Your task to perform on an android device: set the stopwatch Image 0: 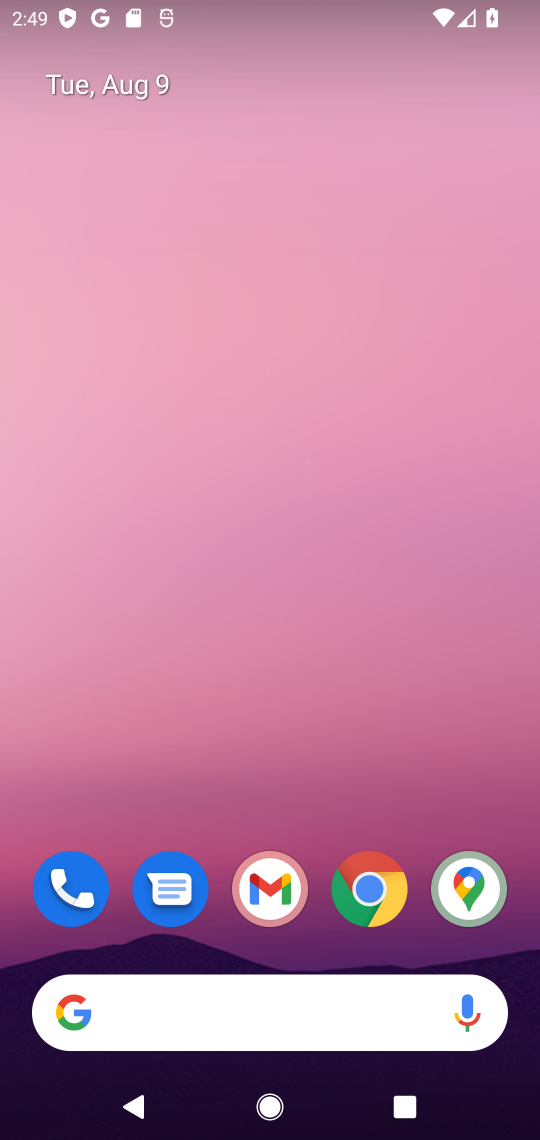
Step 0: drag from (325, 775) to (353, 0)
Your task to perform on an android device: set the stopwatch Image 1: 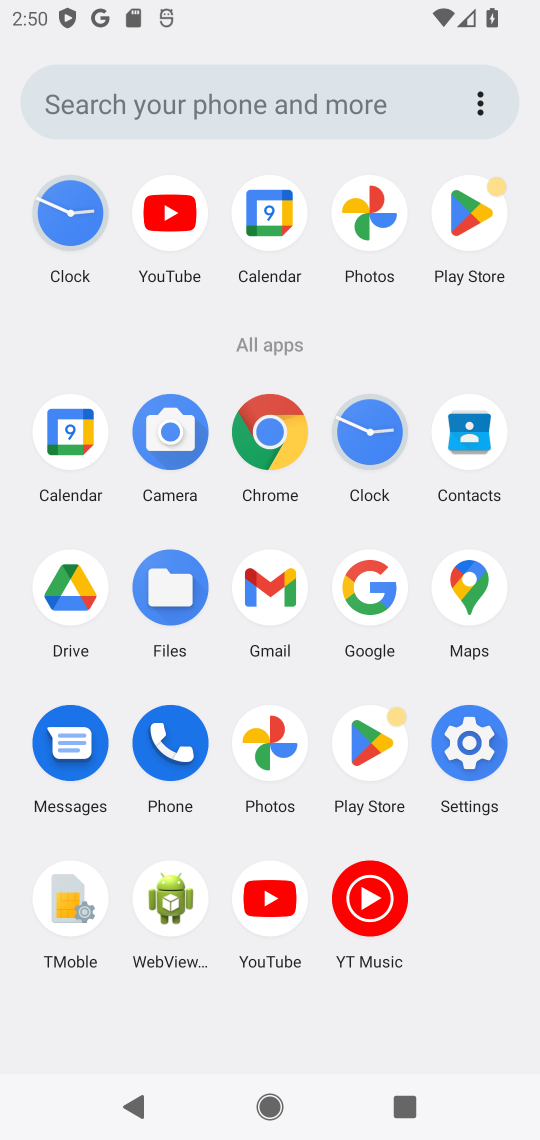
Step 1: click (79, 213)
Your task to perform on an android device: set the stopwatch Image 2: 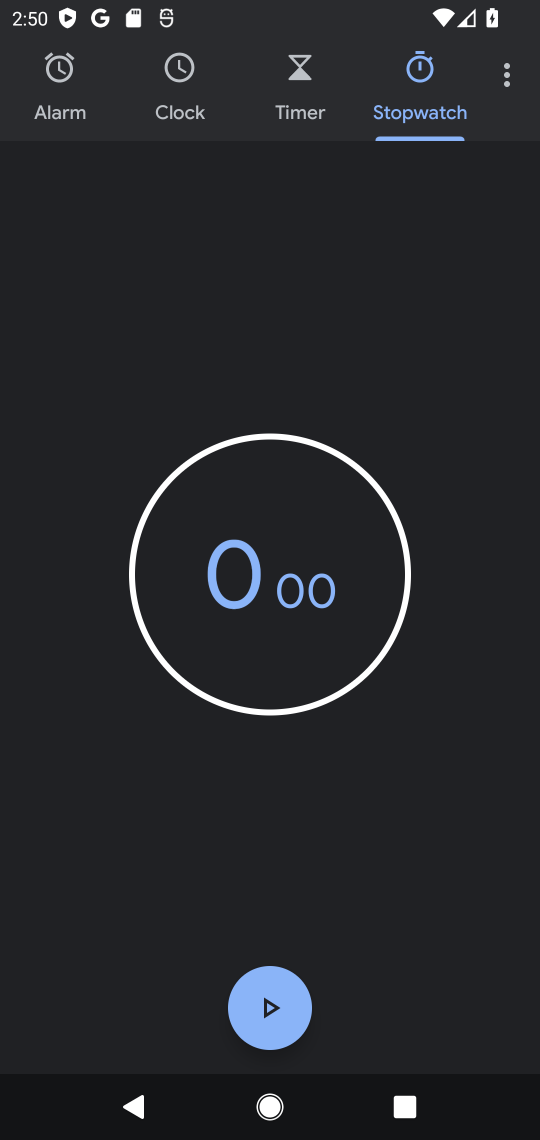
Step 2: click (420, 84)
Your task to perform on an android device: set the stopwatch Image 3: 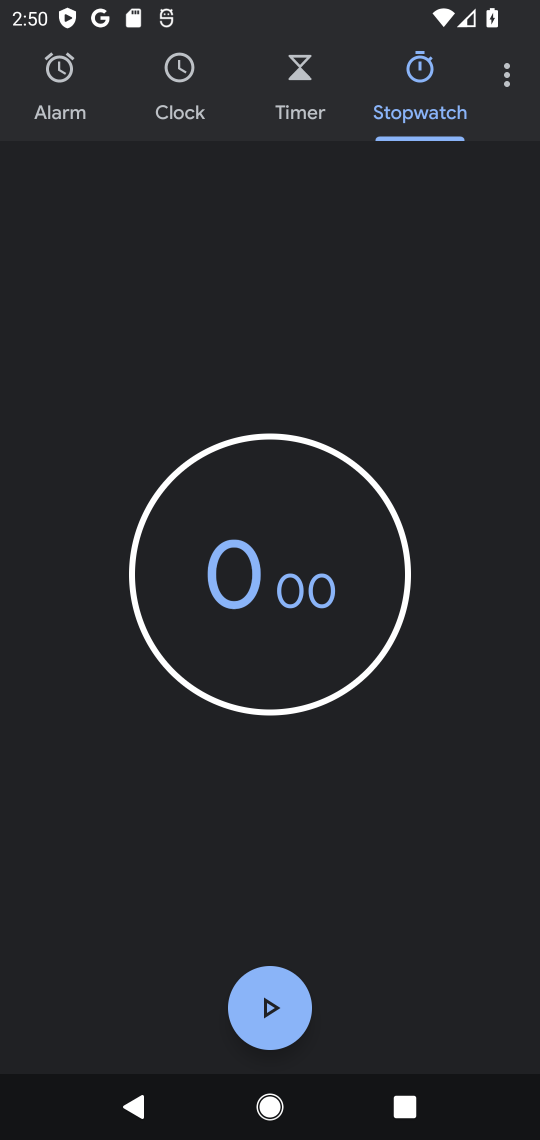
Step 3: task complete